Your task to perform on an android device: stop showing notifications on the lock screen Image 0: 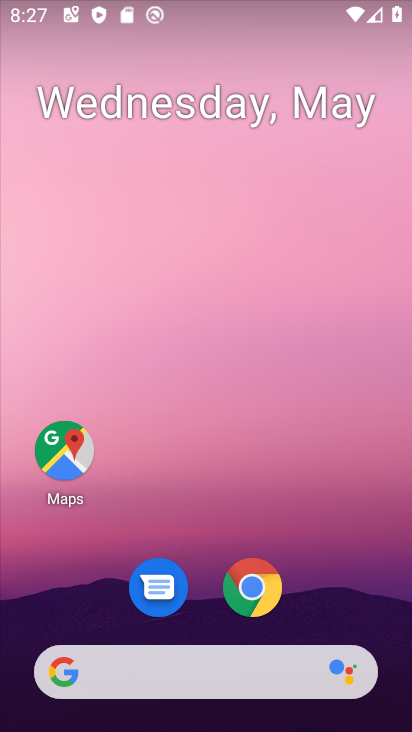
Step 0: drag from (392, 623) to (305, 29)
Your task to perform on an android device: stop showing notifications on the lock screen Image 1: 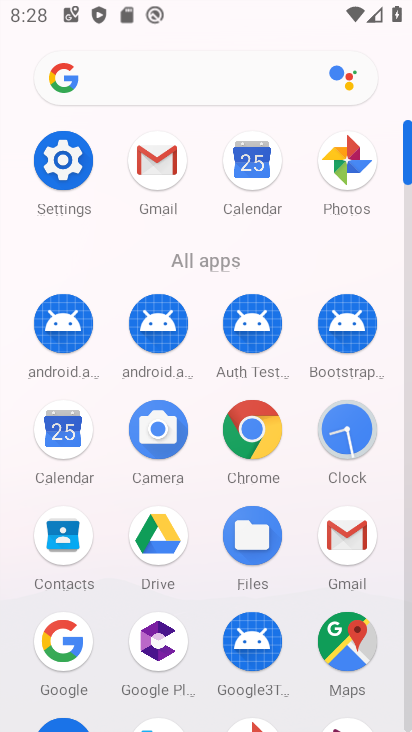
Step 1: click (405, 692)
Your task to perform on an android device: stop showing notifications on the lock screen Image 2: 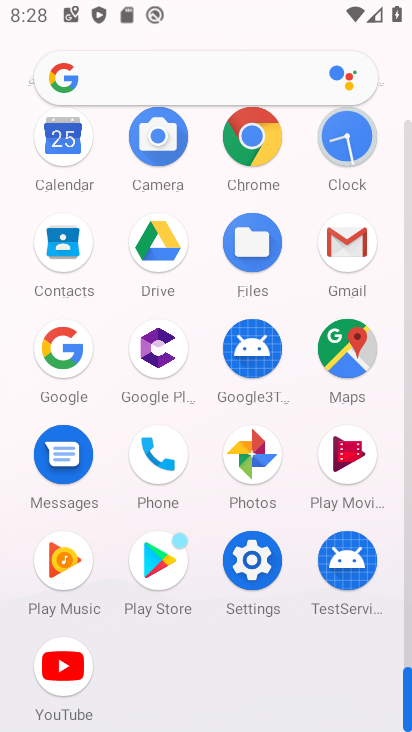
Step 2: click (254, 557)
Your task to perform on an android device: stop showing notifications on the lock screen Image 3: 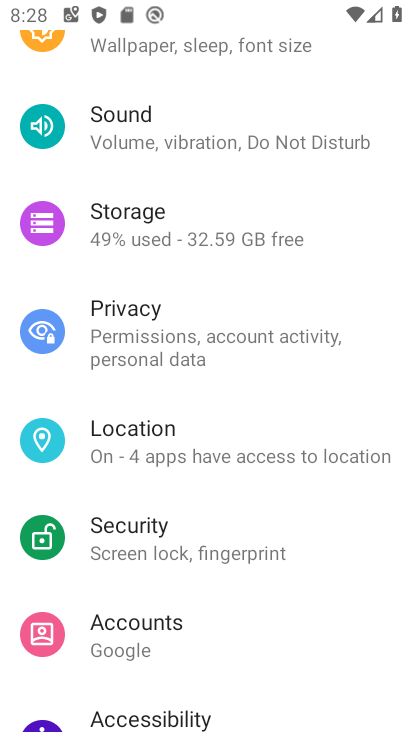
Step 3: drag from (282, 164) to (280, 535)
Your task to perform on an android device: stop showing notifications on the lock screen Image 4: 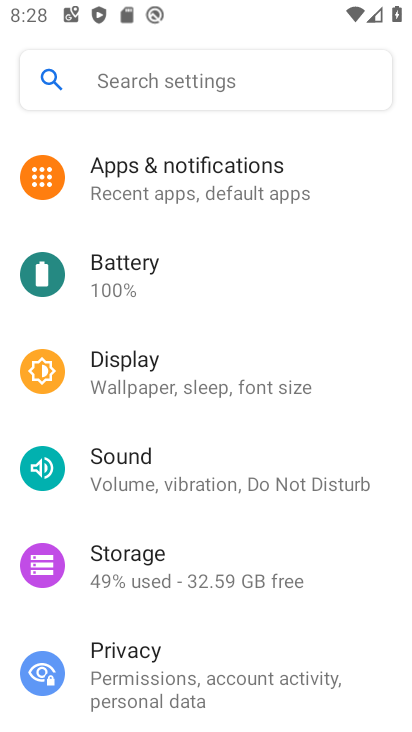
Step 4: drag from (374, 204) to (352, 544)
Your task to perform on an android device: stop showing notifications on the lock screen Image 5: 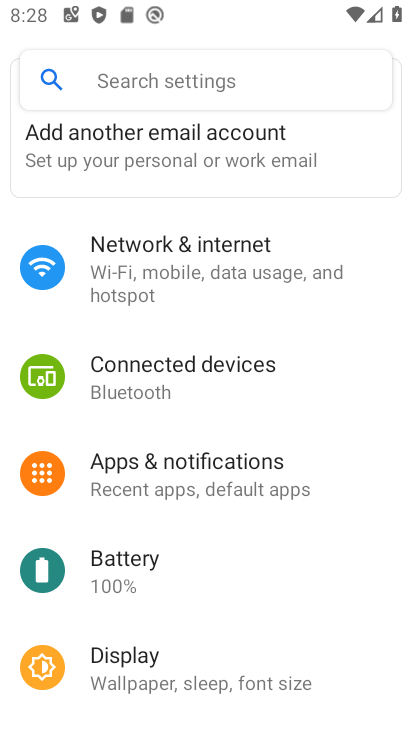
Step 5: click (144, 453)
Your task to perform on an android device: stop showing notifications on the lock screen Image 6: 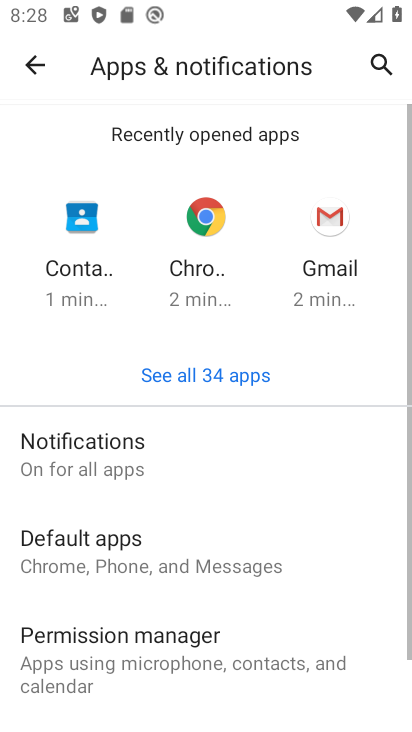
Step 6: click (144, 453)
Your task to perform on an android device: stop showing notifications on the lock screen Image 7: 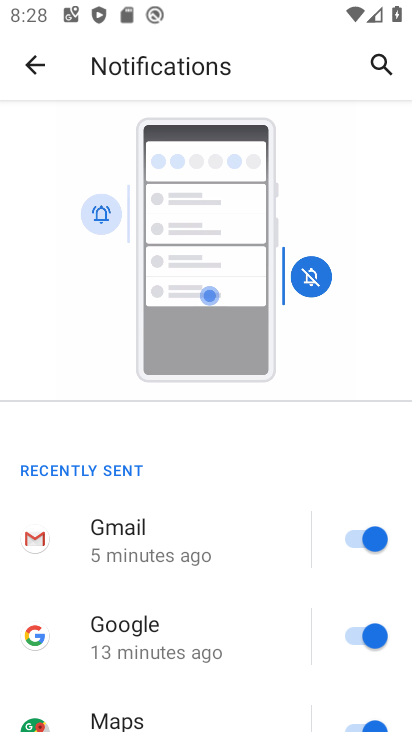
Step 7: drag from (294, 686) to (243, 124)
Your task to perform on an android device: stop showing notifications on the lock screen Image 8: 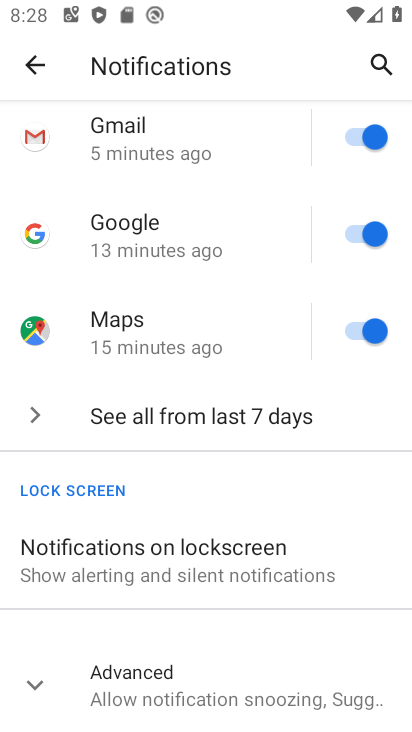
Step 8: click (181, 564)
Your task to perform on an android device: stop showing notifications on the lock screen Image 9: 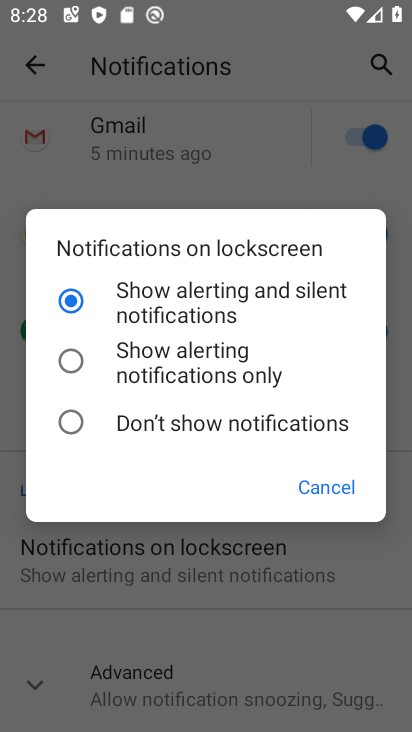
Step 9: click (69, 425)
Your task to perform on an android device: stop showing notifications on the lock screen Image 10: 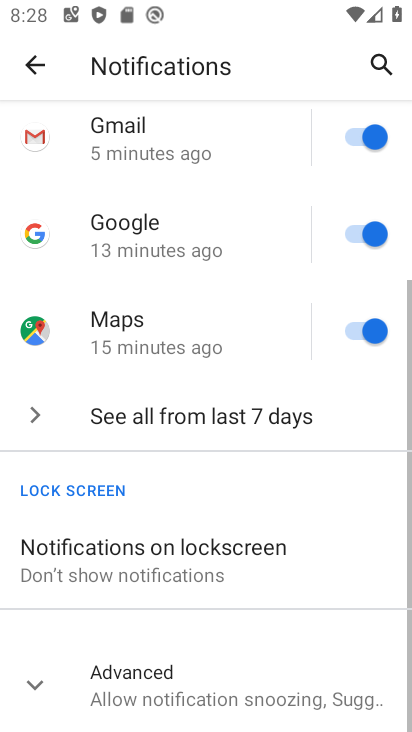
Step 10: task complete